Your task to perform on an android device: Set the phone to "Do not disturb". Image 0: 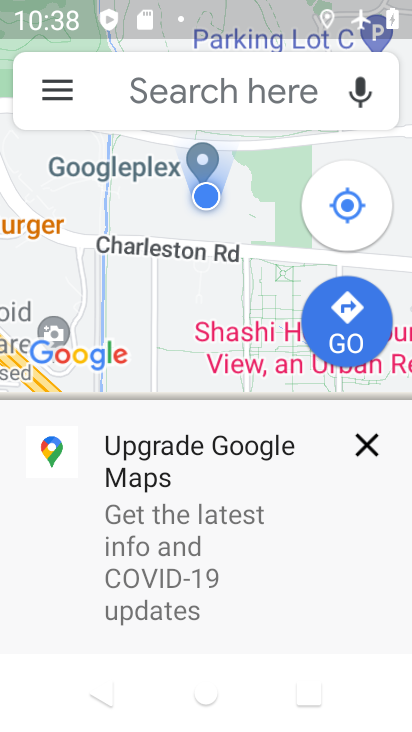
Step 0: press home button
Your task to perform on an android device: Set the phone to "Do not disturb". Image 1: 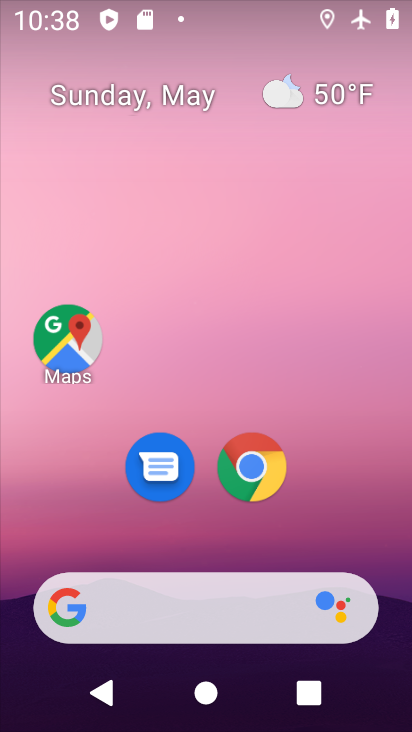
Step 1: drag from (181, 545) to (191, 153)
Your task to perform on an android device: Set the phone to "Do not disturb". Image 2: 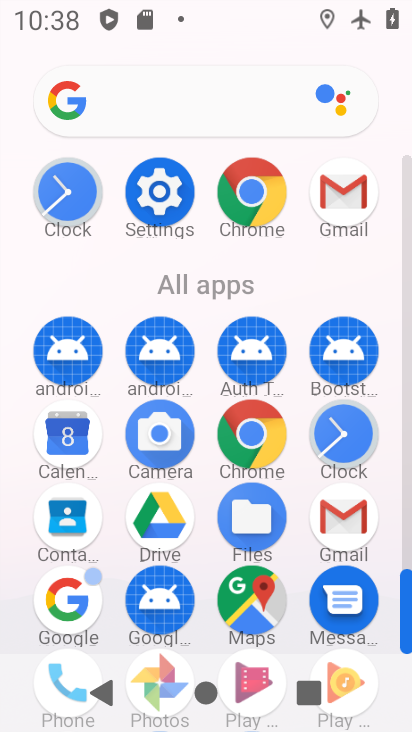
Step 2: click (165, 174)
Your task to perform on an android device: Set the phone to "Do not disturb". Image 3: 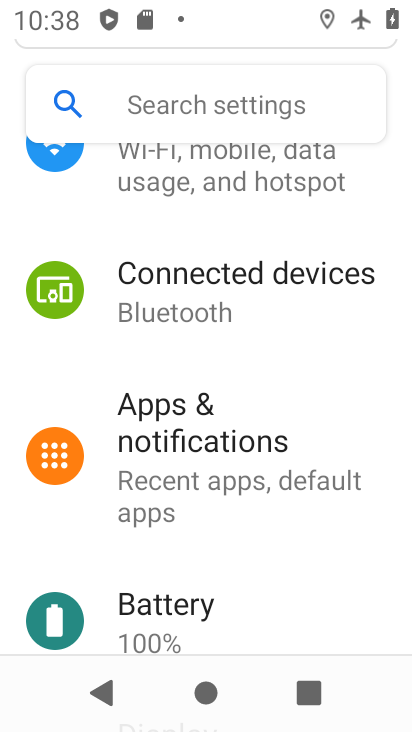
Step 3: drag from (187, 584) to (230, 203)
Your task to perform on an android device: Set the phone to "Do not disturb". Image 4: 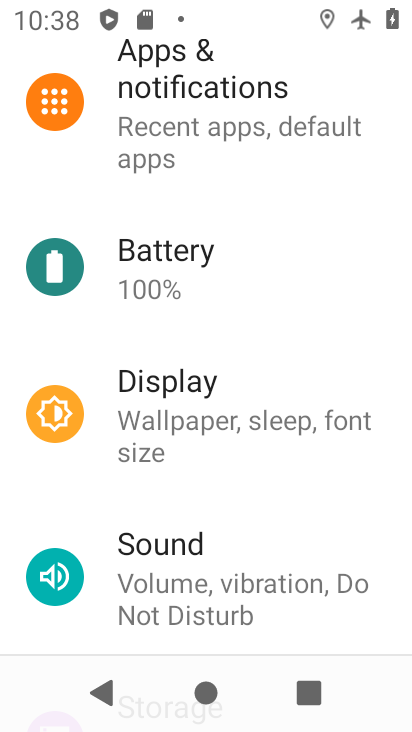
Step 4: click (206, 563)
Your task to perform on an android device: Set the phone to "Do not disturb". Image 5: 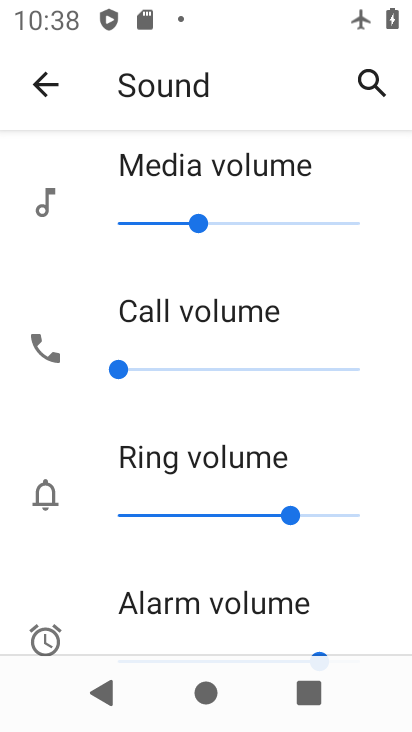
Step 5: drag from (254, 585) to (265, 245)
Your task to perform on an android device: Set the phone to "Do not disturb". Image 6: 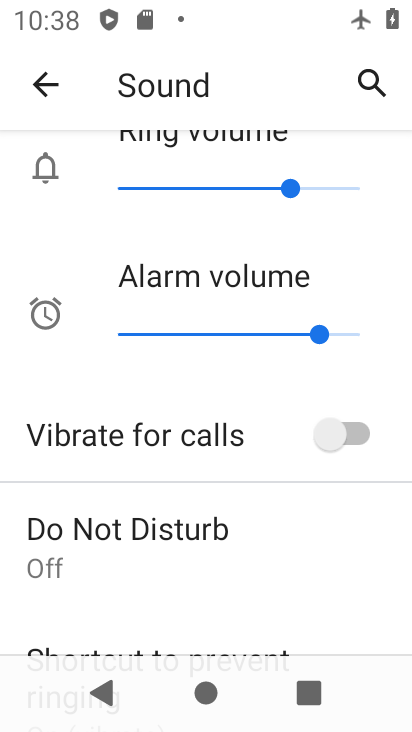
Step 6: click (185, 545)
Your task to perform on an android device: Set the phone to "Do not disturb". Image 7: 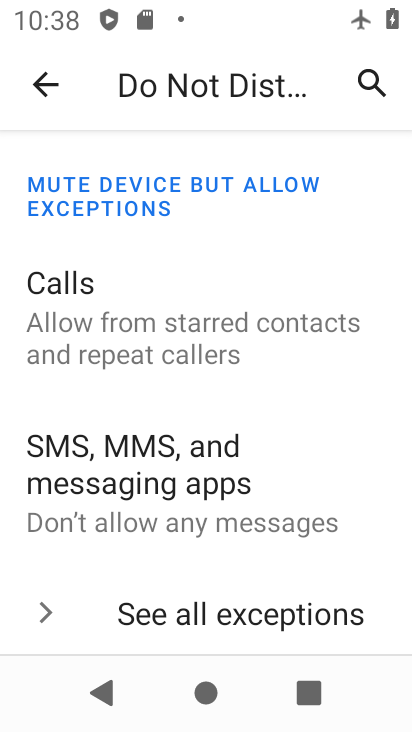
Step 7: drag from (220, 592) to (231, 207)
Your task to perform on an android device: Set the phone to "Do not disturb". Image 8: 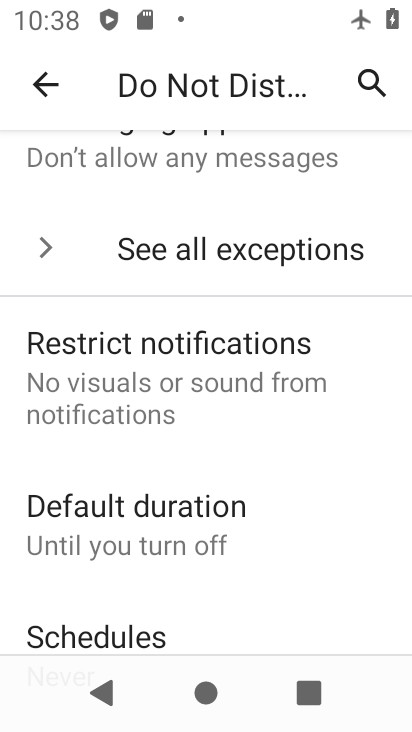
Step 8: drag from (213, 482) to (247, 125)
Your task to perform on an android device: Set the phone to "Do not disturb". Image 9: 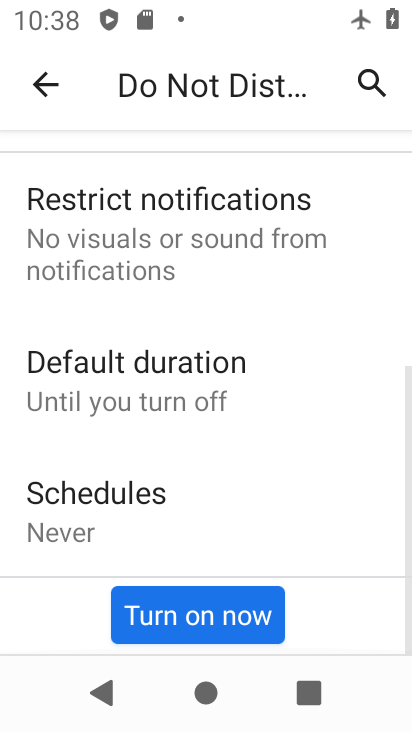
Step 9: click (208, 600)
Your task to perform on an android device: Set the phone to "Do not disturb". Image 10: 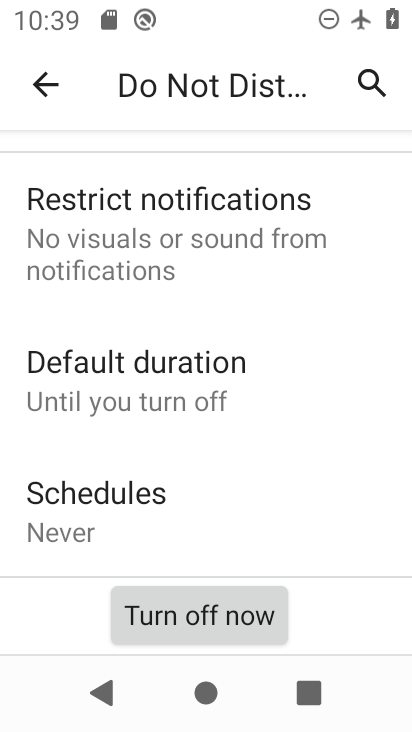
Step 10: task complete